Your task to perform on an android device: turn on notifications settings in the gmail app Image 0: 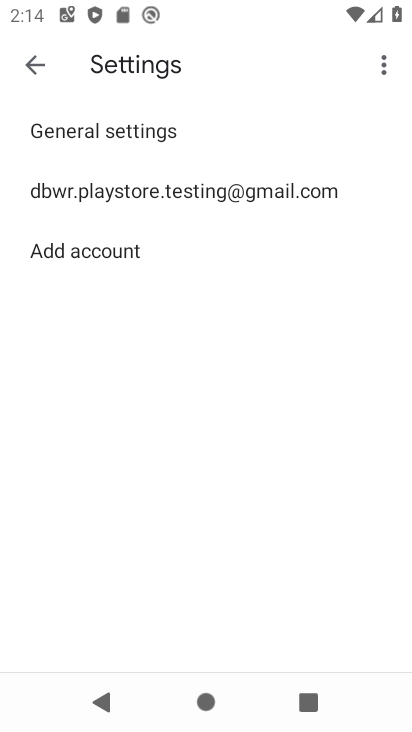
Step 0: press back button
Your task to perform on an android device: turn on notifications settings in the gmail app Image 1: 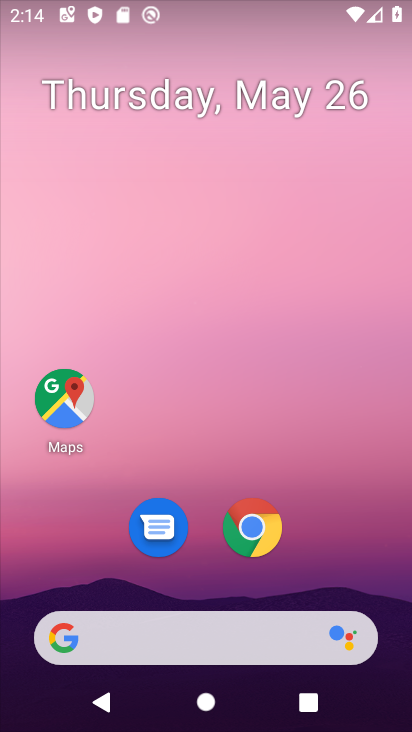
Step 1: drag from (188, 581) to (285, 45)
Your task to perform on an android device: turn on notifications settings in the gmail app Image 2: 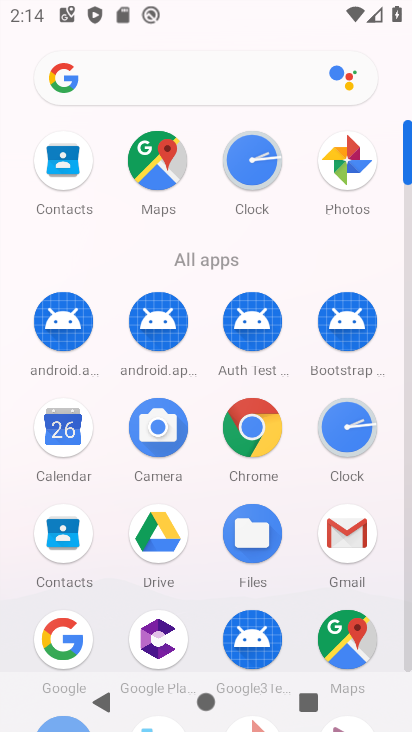
Step 2: click (339, 536)
Your task to perform on an android device: turn on notifications settings in the gmail app Image 3: 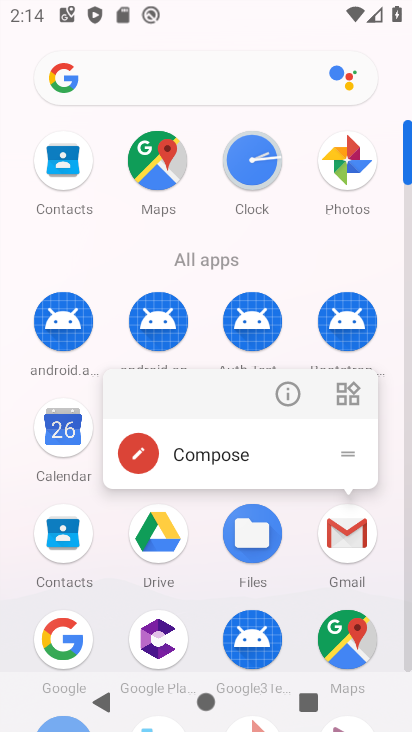
Step 3: click (291, 403)
Your task to perform on an android device: turn on notifications settings in the gmail app Image 4: 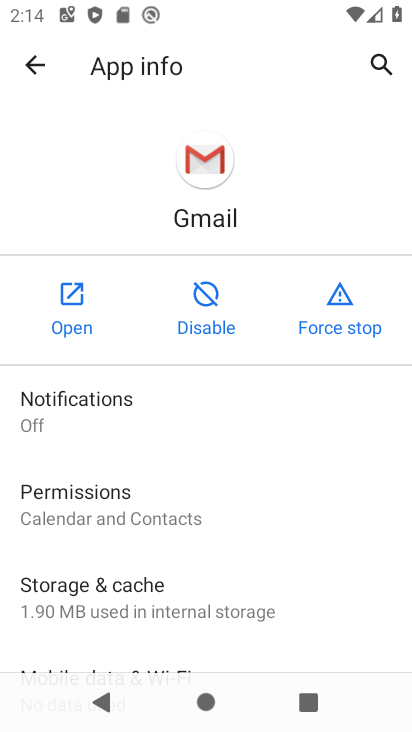
Step 4: click (133, 422)
Your task to perform on an android device: turn on notifications settings in the gmail app Image 5: 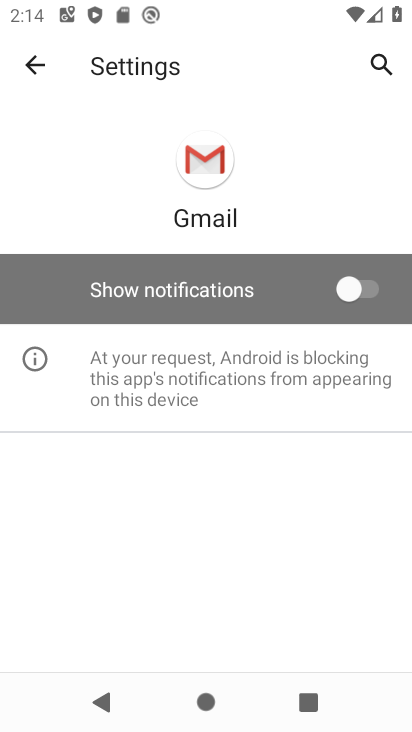
Step 5: click (356, 292)
Your task to perform on an android device: turn on notifications settings in the gmail app Image 6: 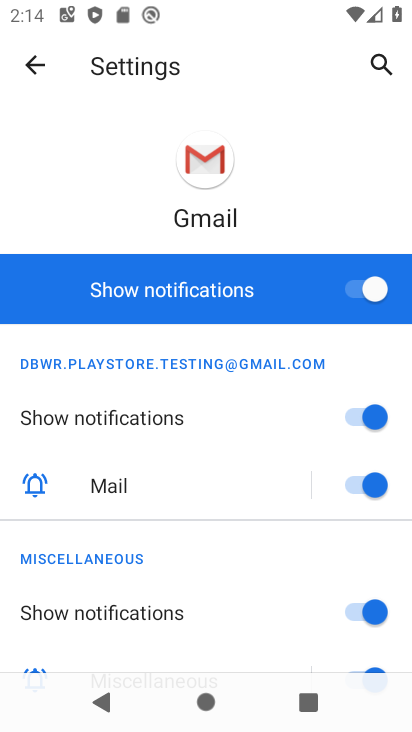
Step 6: task complete